Your task to perform on an android device: turn off airplane mode Image 0: 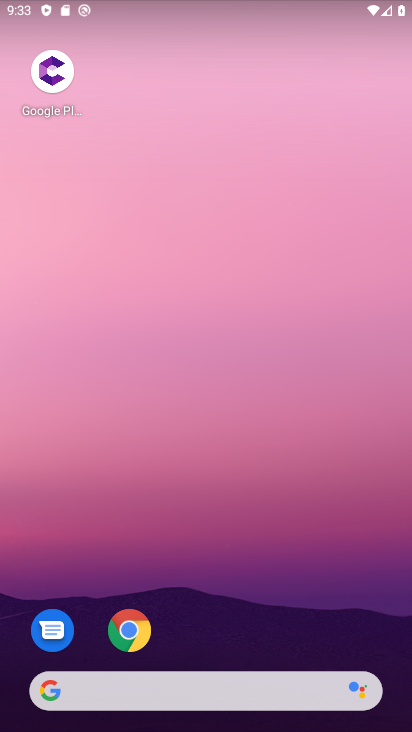
Step 0: drag from (348, 45) to (315, 582)
Your task to perform on an android device: turn off airplane mode Image 1: 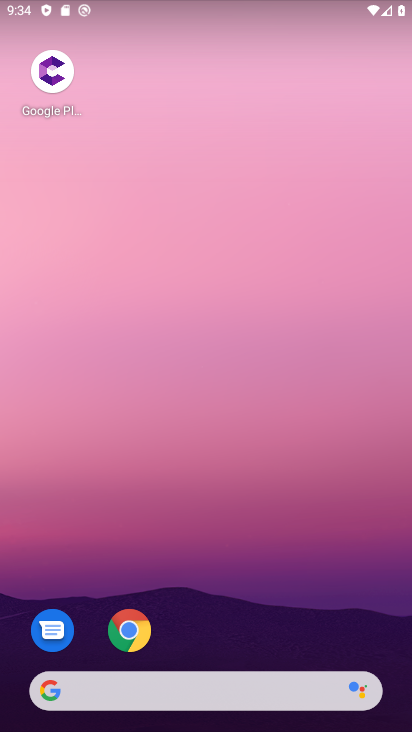
Step 1: task complete